Your task to perform on an android device: Open the Play Movies app and select the watchlist tab. Image 0: 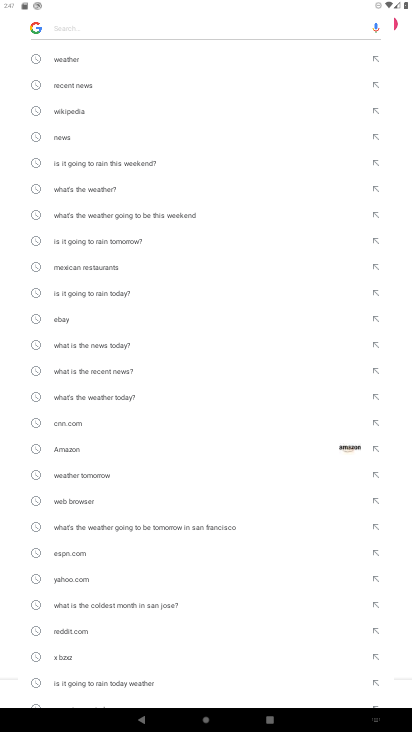
Step 0: press home button
Your task to perform on an android device: Open the Play Movies app and select the watchlist tab. Image 1: 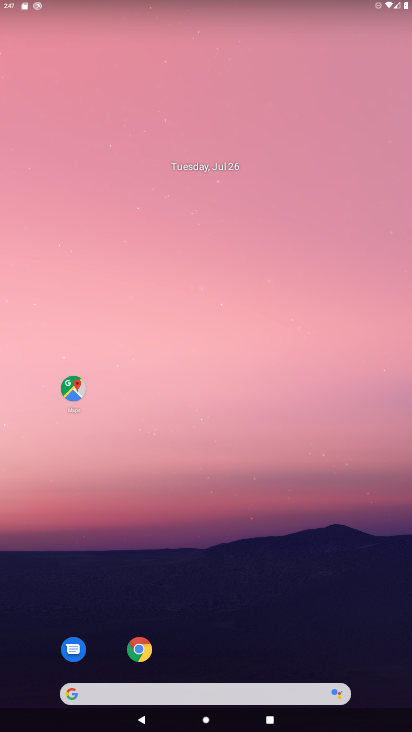
Step 1: drag from (192, 619) to (262, 66)
Your task to perform on an android device: Open the Play Movies app and select the watchlist tab. Image 2: 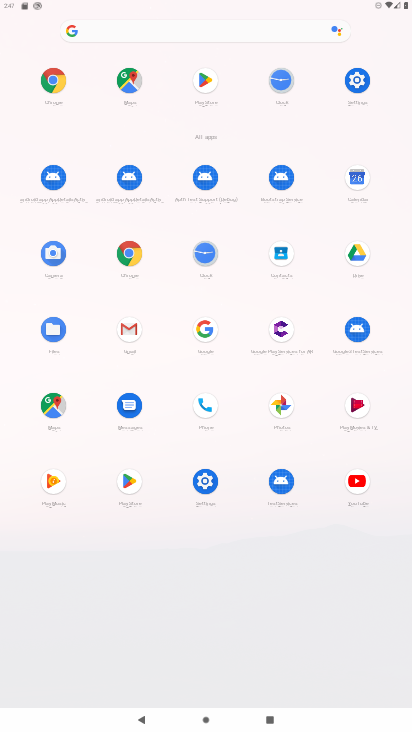
Step 2: click (365, 400)
Your task to perform on an android device: Open the Play Movies app and select the watchlist tab. Image 3: 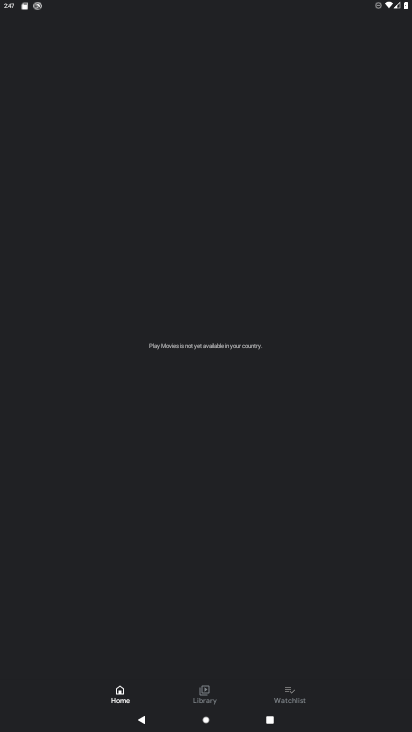
Step 3: click (304, 687)
Your task to perform on an android device: Open the Play Movies app and select the watchlist tab. Image 4: 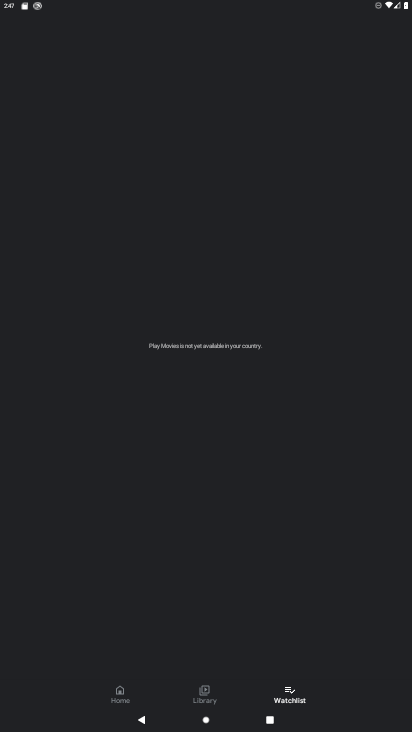
Step 4: task complete